Your task to perform on an android device: Open Amazon Image 0: 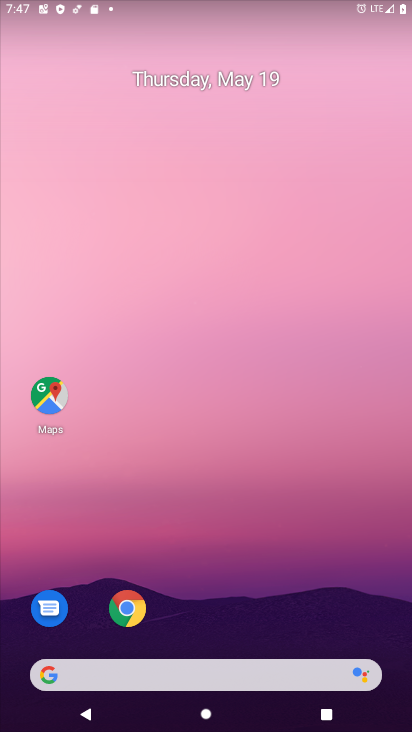
Step 0: click (116, 605)
Your task to perform on an android device: Open Amazon Image 1: 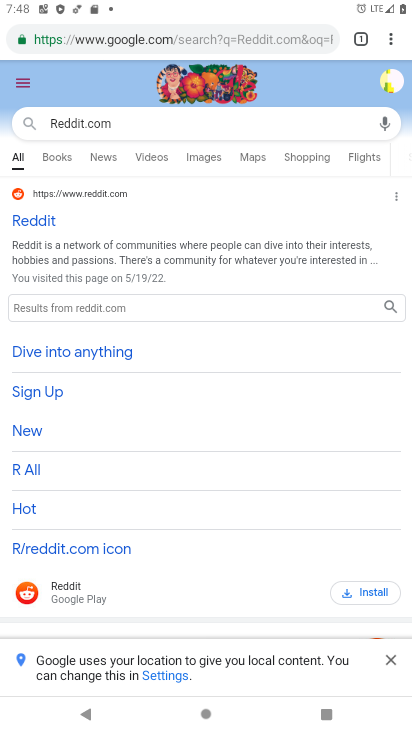
Step 1: click (335, 35)
Your task to perform on an android device: Open Amazon Image 2: 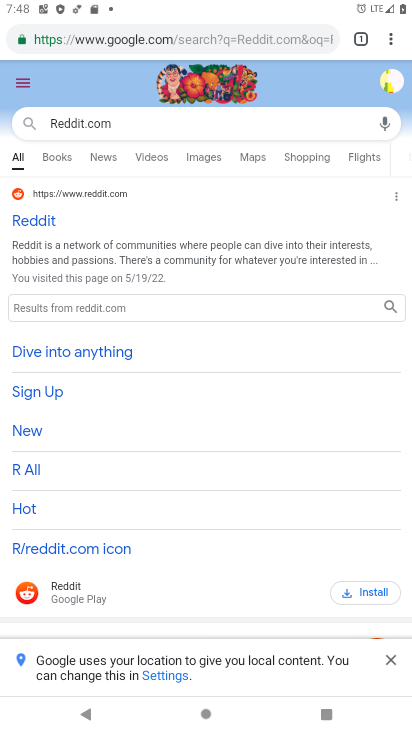
Step 2: click (324, 32)
Your task to perform on an android device: Open Amazon Image 3: 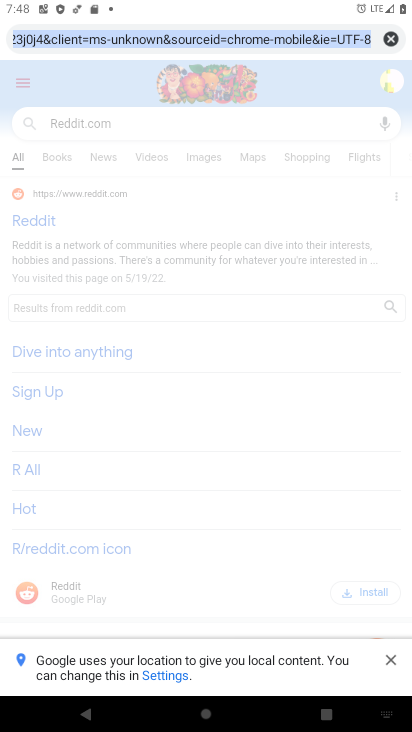
Step 3: click (387, 30)
Your task to perform on an android device: Open Amazon Image 4: 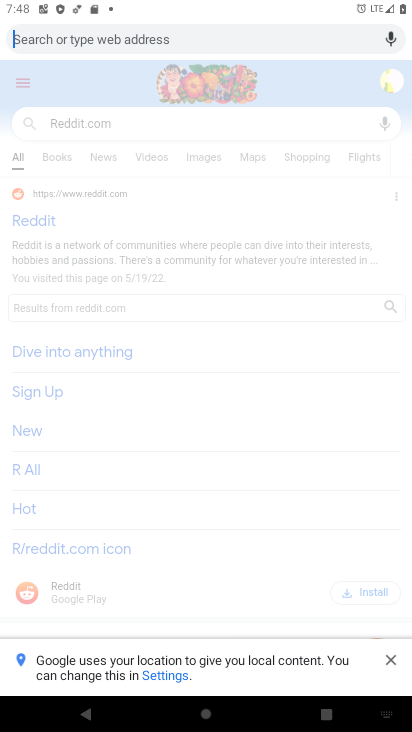
Step 4: type "Amazon"
Your task to perform on an android device: Open Amazon Image 5: 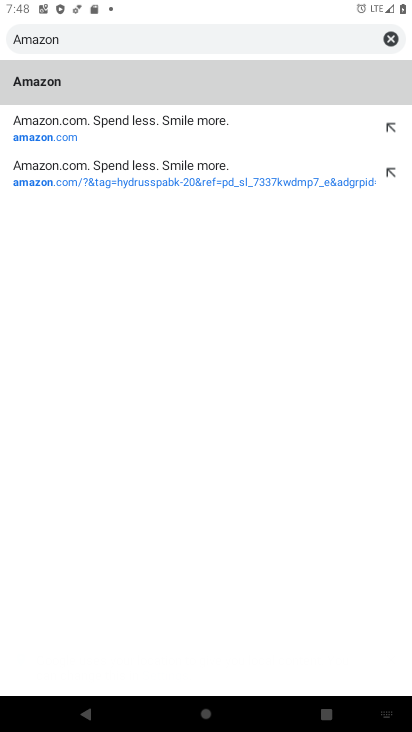
Step 5: click (64, 134)
Your task to perform on an android device: Open Amazon Image 6: 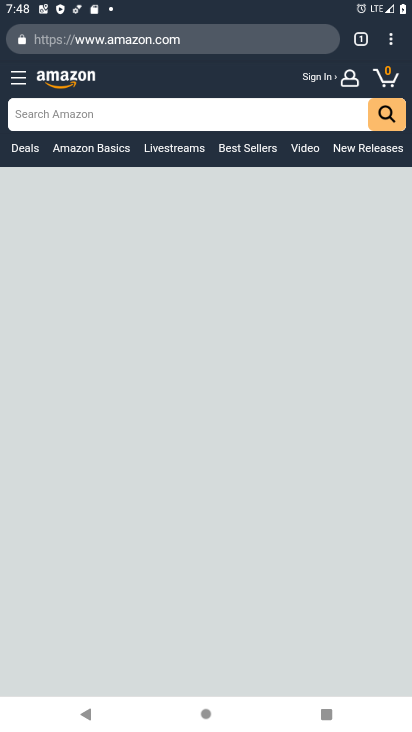
Step 6: task complete